Your task to perform on an android device: Set the phone to "Do not disturb". Image 0: 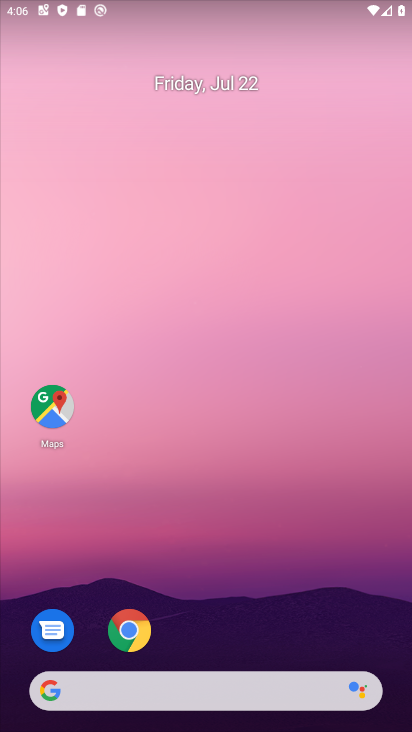
Step 0: drag from (233, 591) to (238, 28)
Your task to perform on an android device: Set the phone to "Do not disturb". Image 1: 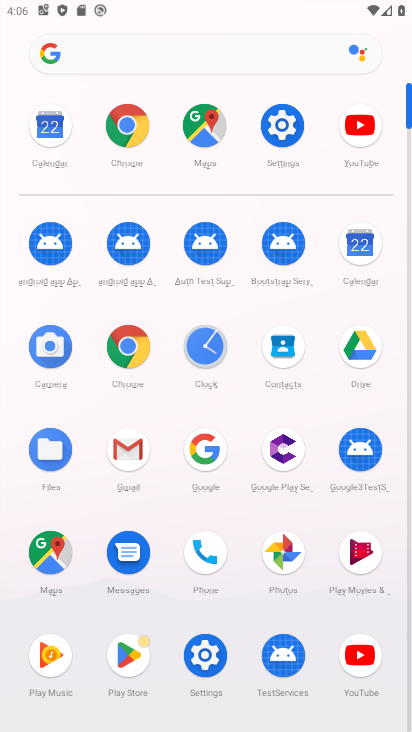
Step 1: click (211, 665)
Your task to perform on an android device: Set the phone to "Do not disturb". Image 2: 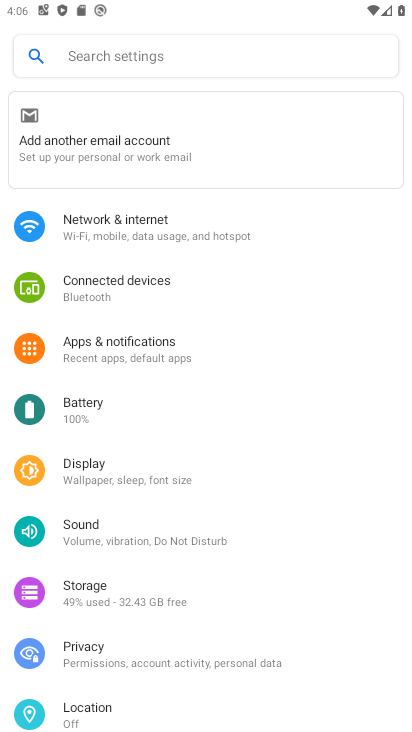
Step 2: click (100, 540)
Your task to perform on an android device: Set the phone to "Do not disturb". Image 3: 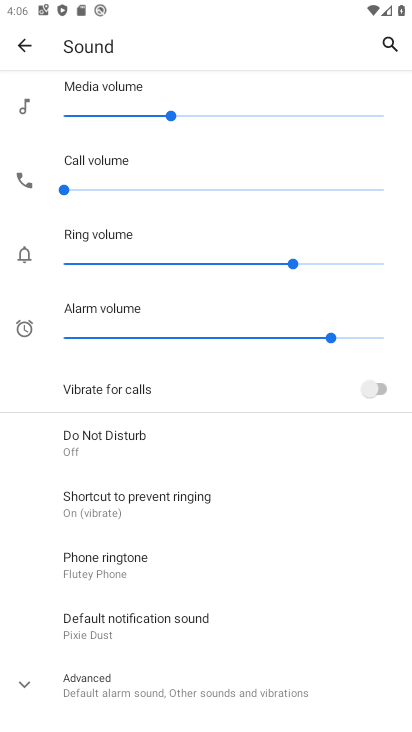
Step 3: click (108, 443)
Your task to perform on an android device: Set the phone to "Do not disturb". Image 4: 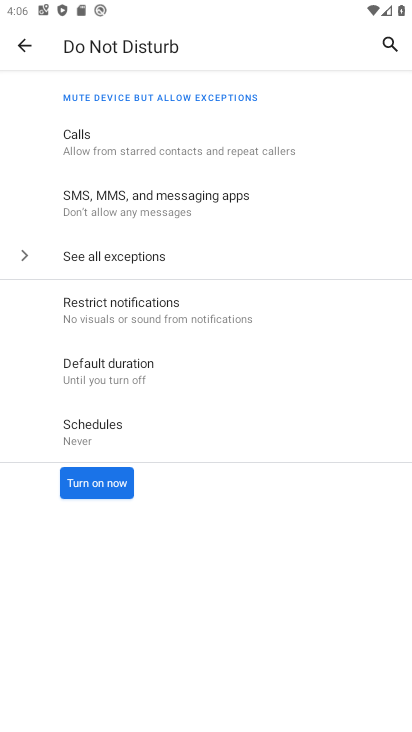
Step 4: click (100, 487)
Your task to perform on an android device: Set the phone to "Do not disturb". Image 5: 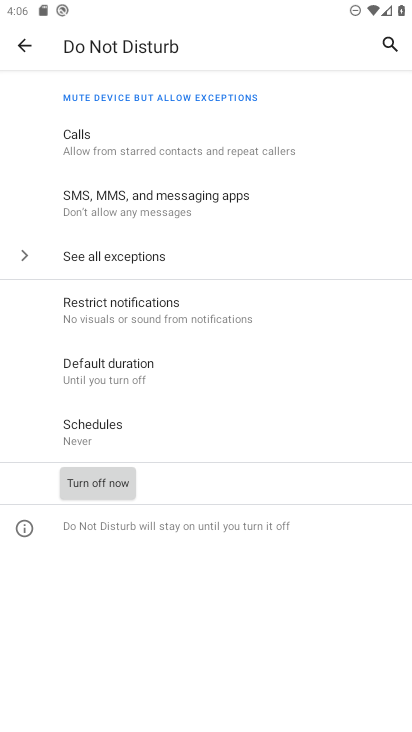
Step 5: task complete